Your task to perform on an android device: set the stopwatch Image 0: 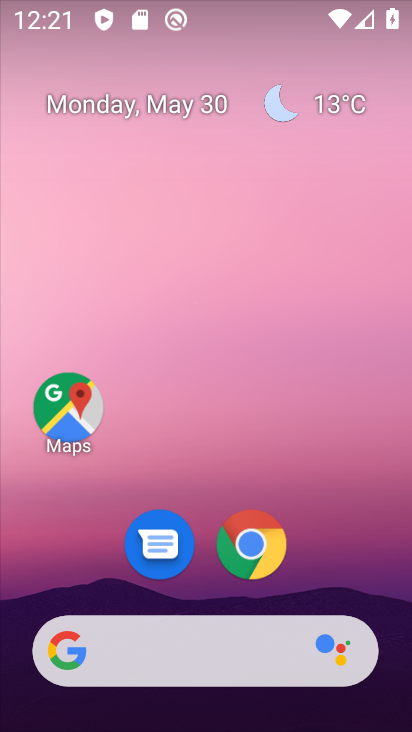
Step 0: drag from (346, 570) to (258, 40)
Your task to perform on an android device: set the stopwatch Image 1: 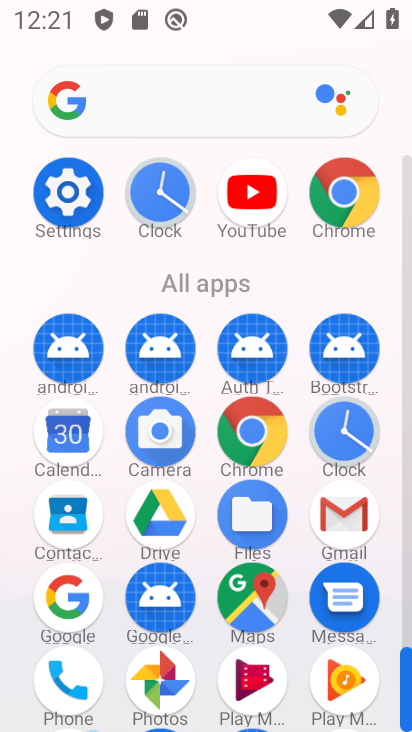
Step 1: click (59, 177)
Your task to perform on an android device: set the stopwatch Image 2: 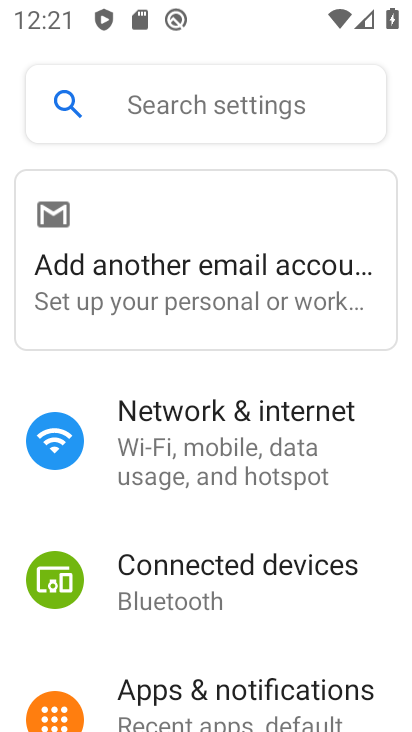
Step 2: press home button
Your task to perform on an android device: set the stopwatch Image 3: 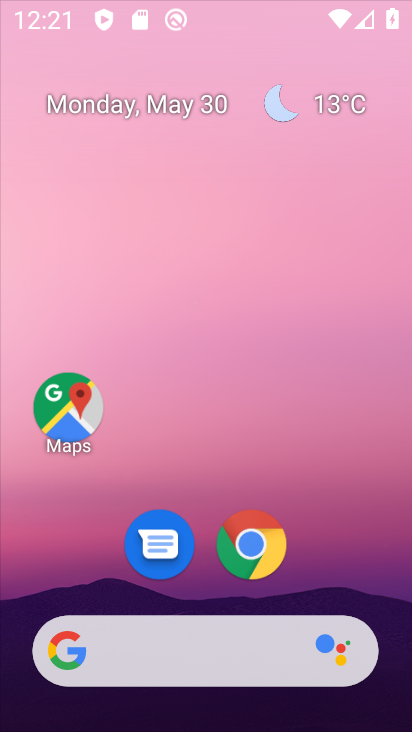
Step 3: press home button
Your task to perform on an android device: set the stopwatch Image 4: 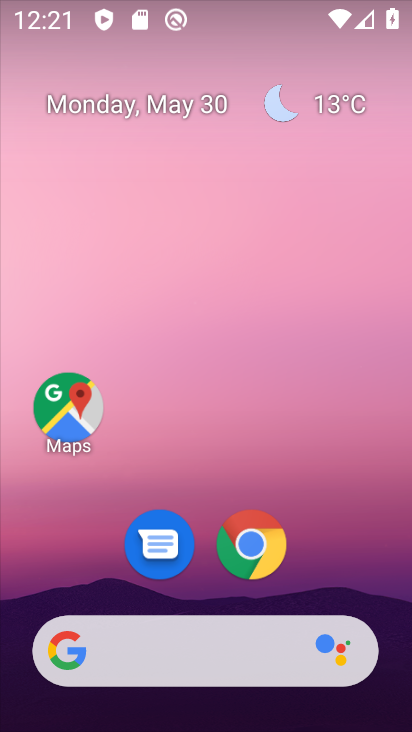
Step 4: drag from (378, 562) to (277, 120)
Your task to perform on an android device: set the stopwatch Image 5: 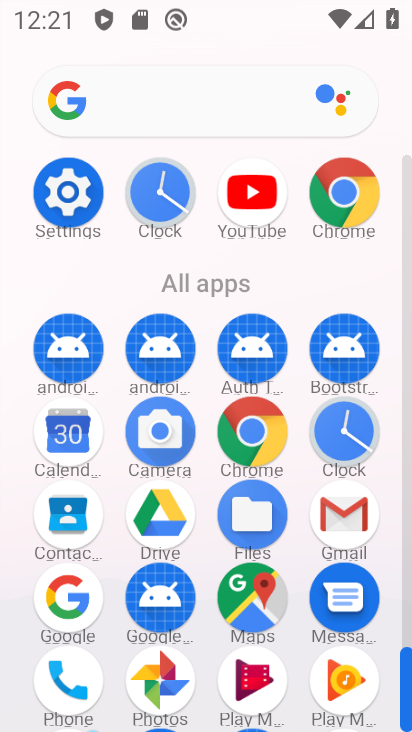
Step 5: click (344, 425)
Your task to perform on an android device: set the stopwatch Image 6: 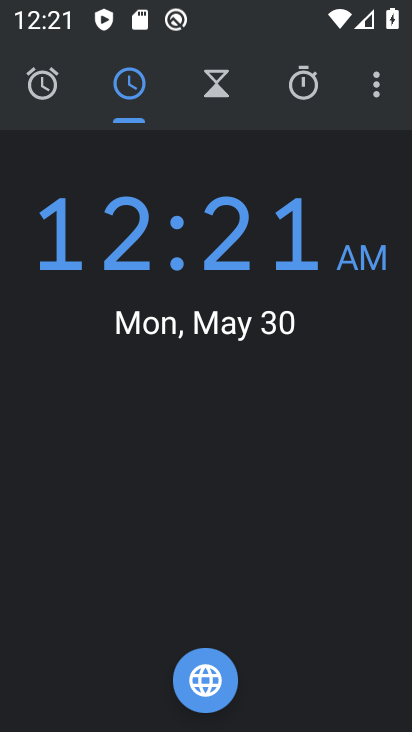
Step 6: click (296, 110)
Your task to perform on an android device: set the stopwatch Image 7: 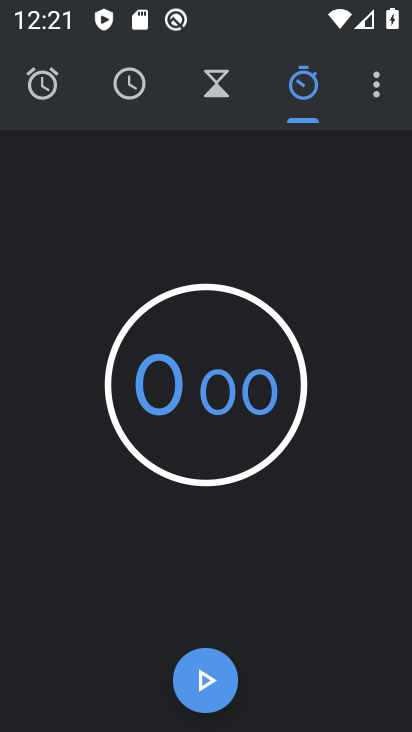
Step 7: task complete